Your task to perform on an android device: find which apps use the phone's location Image 0: 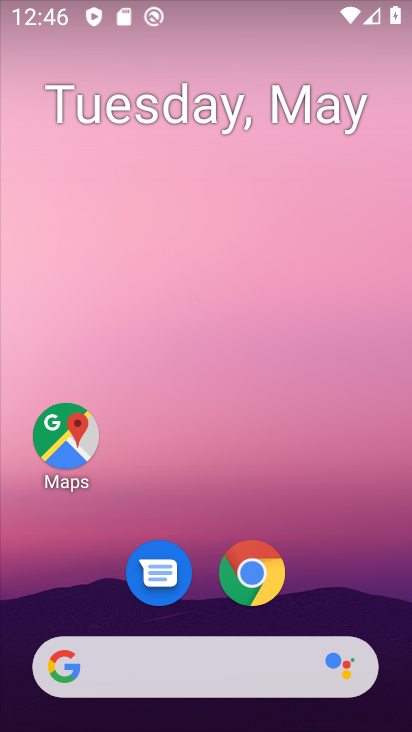
Step 0: drag from (328, 535) to (314, 93)
Your task to perform on an android device: find which apps use the phone's location Image 1: 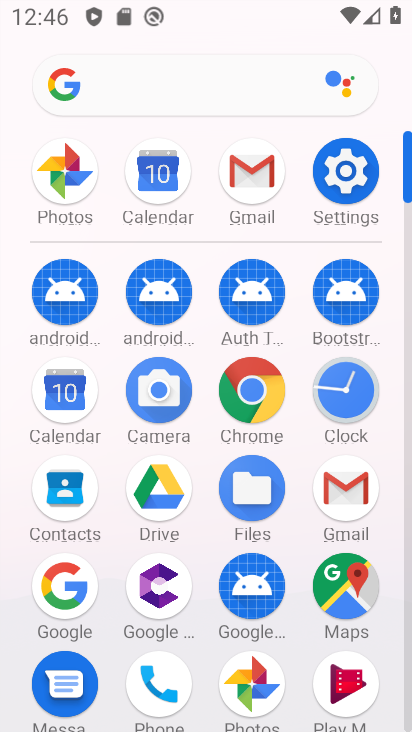
Step 1: click (365, 180)
Your task to perform on an android device: find which apps use the phone's location Image 2: 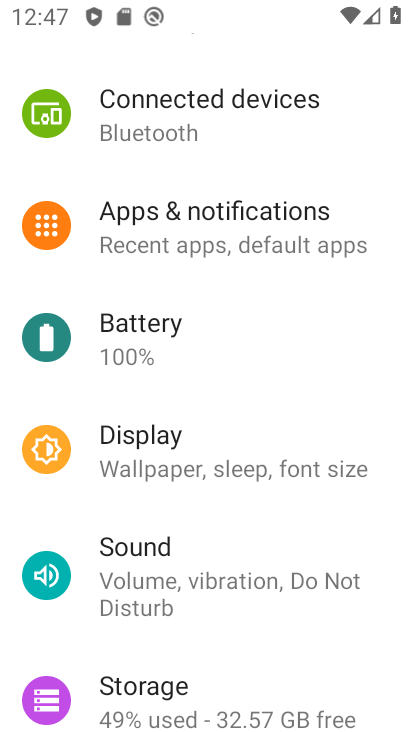
Step 2: drag from (293, 575) to (306, 246)
Your task to perform on an android device: find which apps use the phone's location Image 3: 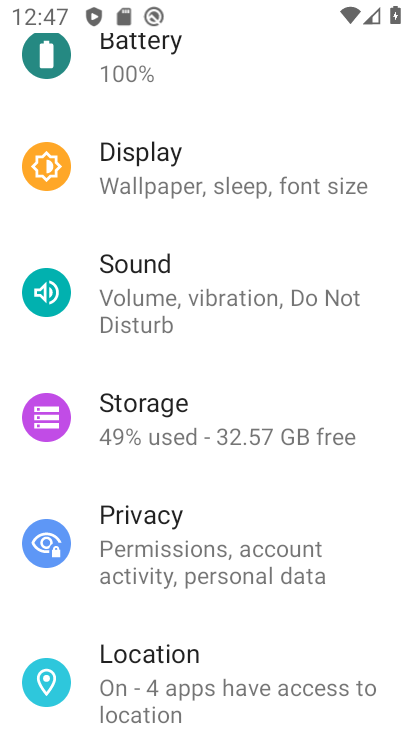
Step 3: click (235, 659)
Your task to perform on an android device: find which apps use the phone's location Image 4: 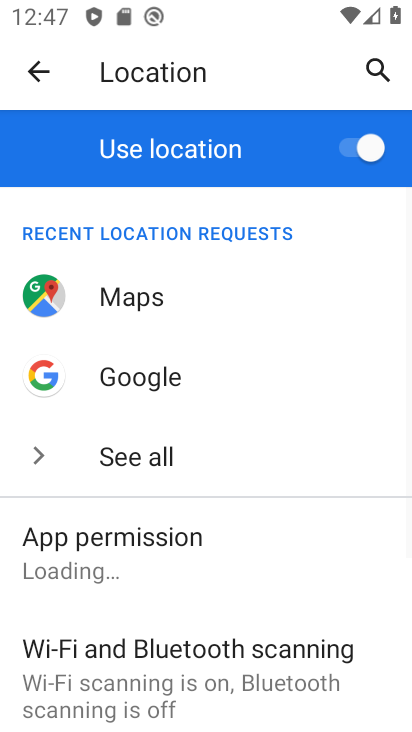
Step 4: click (131, 570)
Your task to perform on an android device: find which apps use the phone's location Image 5: 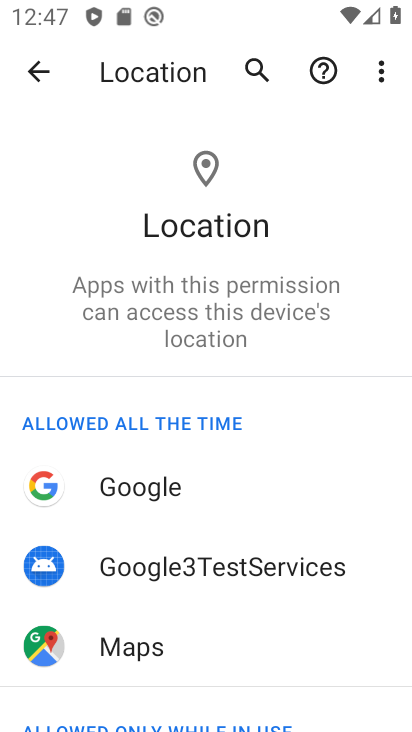
Step 5: task complete